Your task to perform on an android device: Open Chrome and go to settings Image 0: 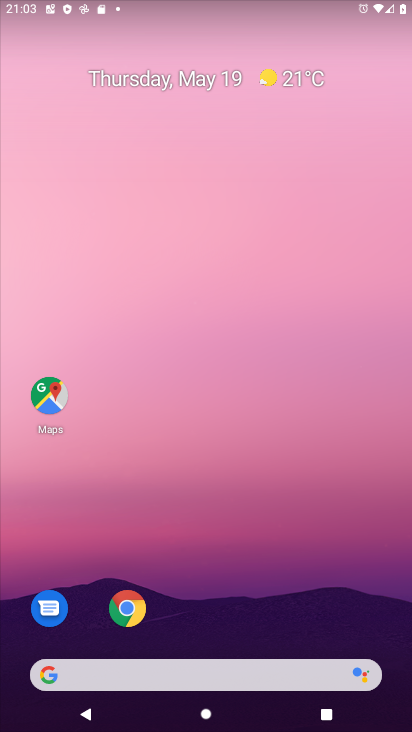
Step 0: click (128, 598)
Your task to perform on an android device: Open Chrome and go to settings Image 1: 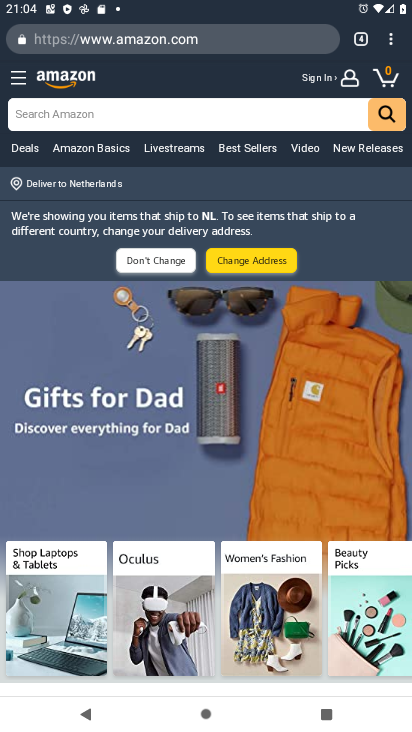
Step 1: press home button
Your task to perform on an android device: Open Chrome and go to settings Image 2: 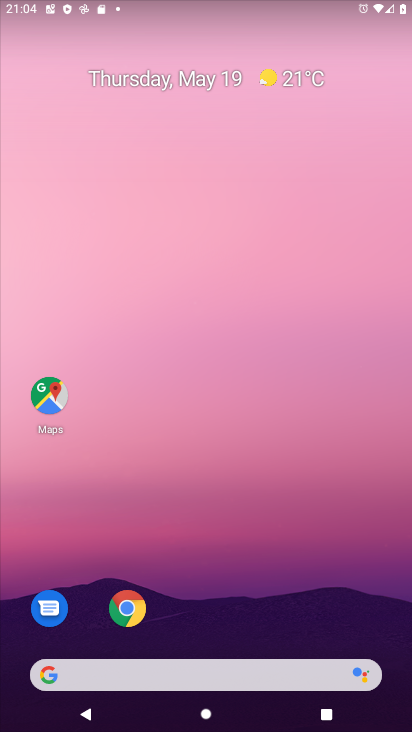
Step 2: click (131, 609)
Your task to perform on an android device: Open Chrome and go to settings Image 3: 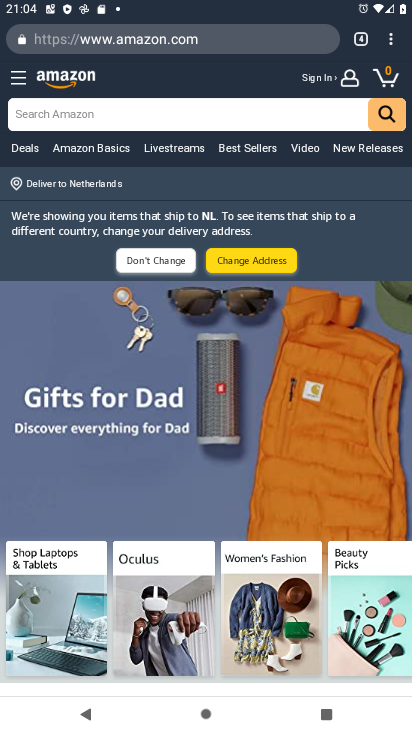
Step 3: click (391, 37)
Your task to perform on an android device: Open Chrome and go to settings Image 4: 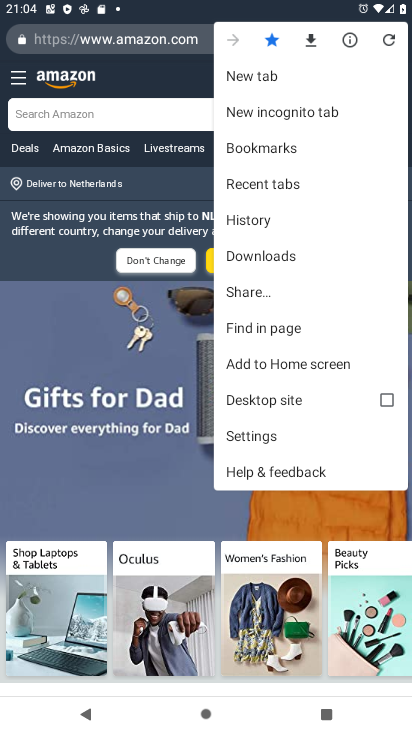
Step 4: click (391, 37)
Your task to perform on an android device: Open Chrome and go to settings Image 5: 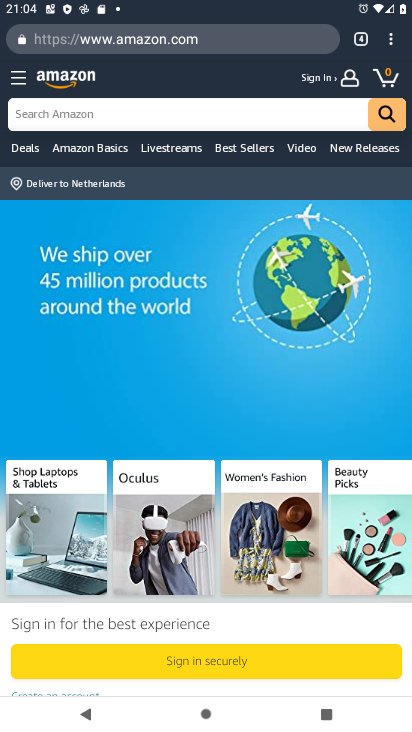
Step 5: click (392, 38)
Your task to perform on an android device: Open Chrome and go to settings Image 6: 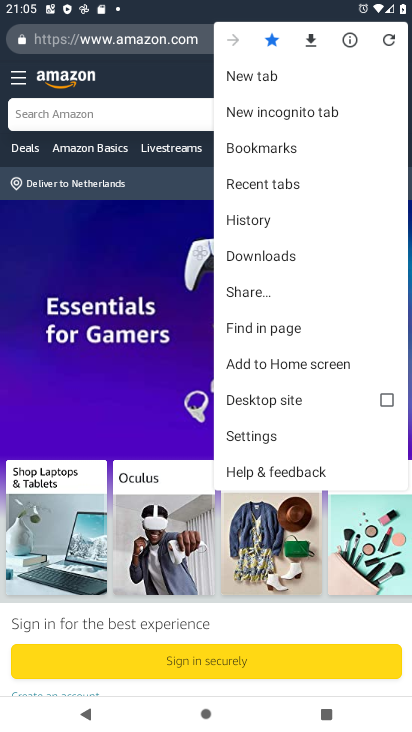
Step 6: click (269, 432)
Your task to perform on an android device: Open Chrome and go to settings Image 7: 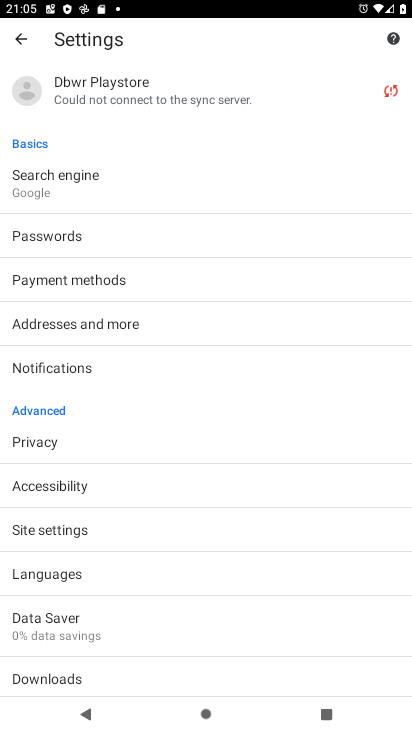
Step 7: task complete